Your task to perform on an android device: Open sound settings Image 0: 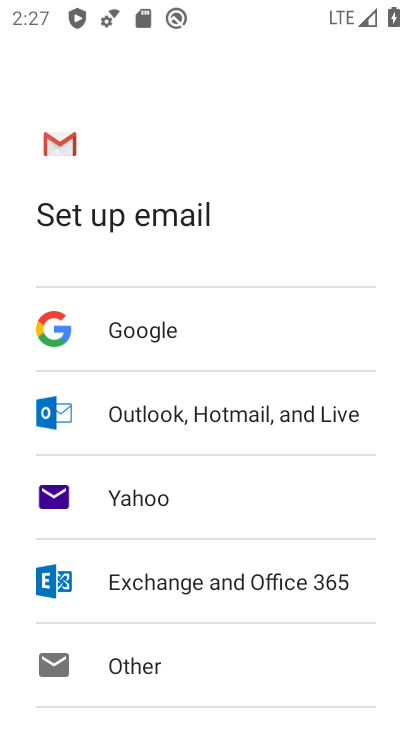
Step 0: press home button
Your task to perform on an android device: Open sound settings Image 1: 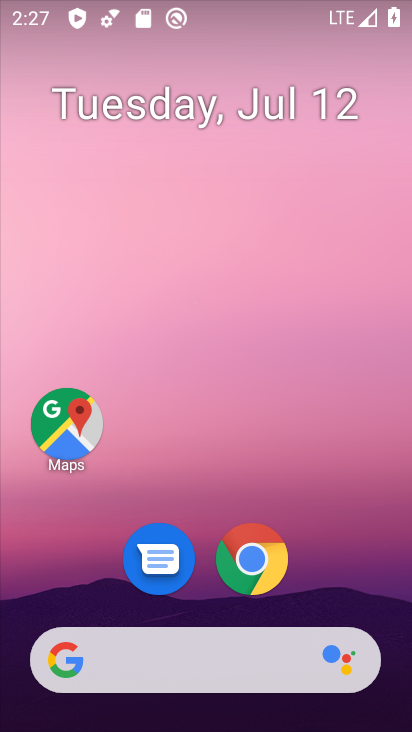
Step 1: drag from (379, 572) to (406, 196)
Your task to perform on an android device: Open sound settings Image 2: 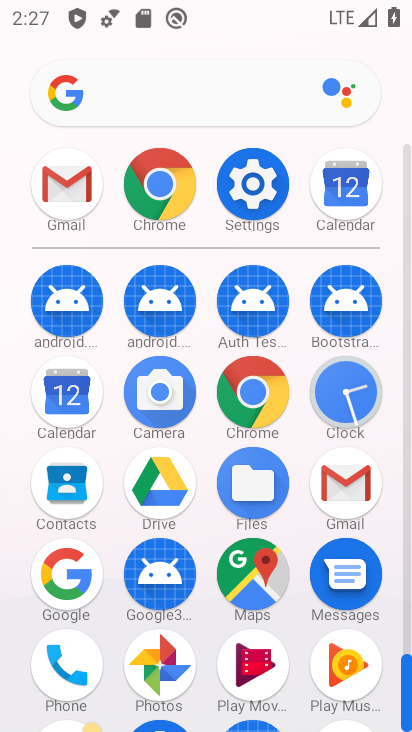
Step 2: click (268, 210)
Your task to perform on an android device: Open sound settings Image 3: 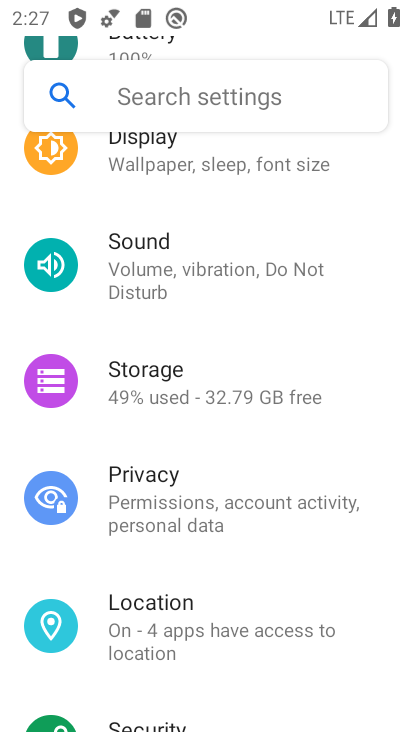
Step 3: drag from (375, 333) to (375, 431)
Your task to perform on an android device: Open sound settings Image 4: 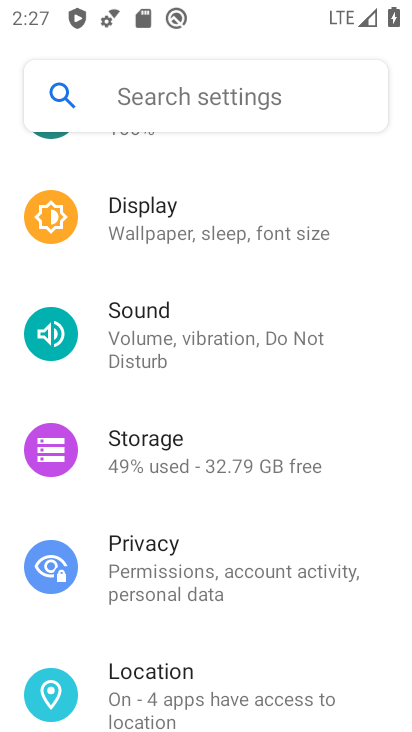
Step 4: drag from (363, 279) to (363, 384)
Your task to perform on an android device: Open sound settings Image 5: 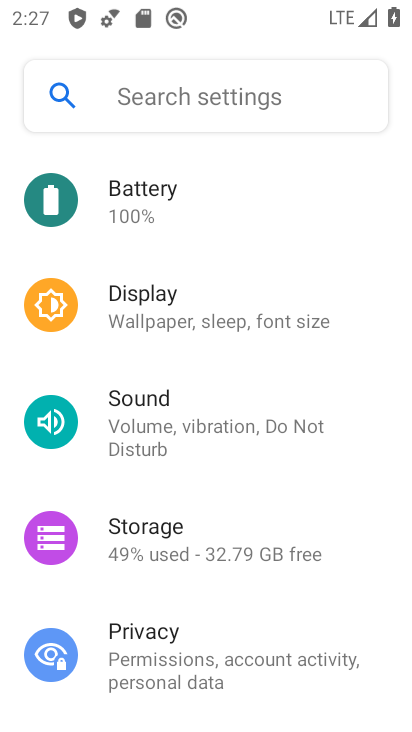
Step 5: drag from (361, 263) to (360, 366)
Your task to perform on an android device: Open sound settings Image 6: 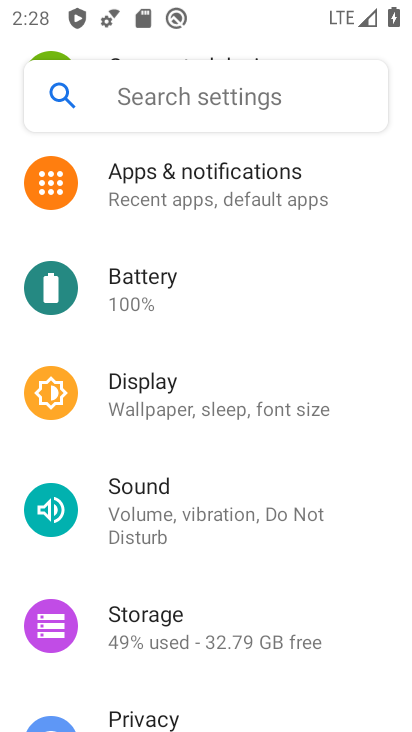
Step 6: drag from (367, 251) to (365, 372)
Your task to perform on an android device: Open sound settings Image 7: 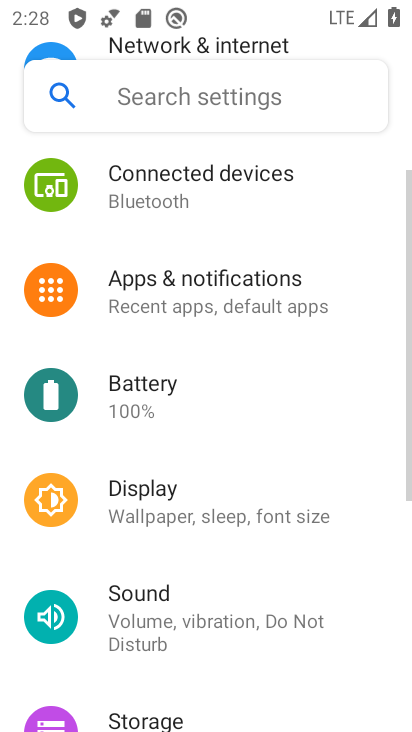
Step 7: drag from (361, 239) to (362, 428)
Your task to perform on an android device: Open sound settings Image 8: 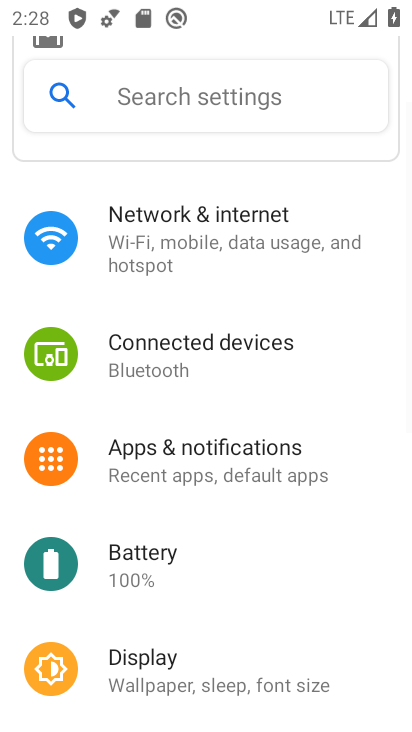
Step 8: drag from (353, 459) to (356, 381)
Your task to perform on an android device: Open sound settings Image 9: 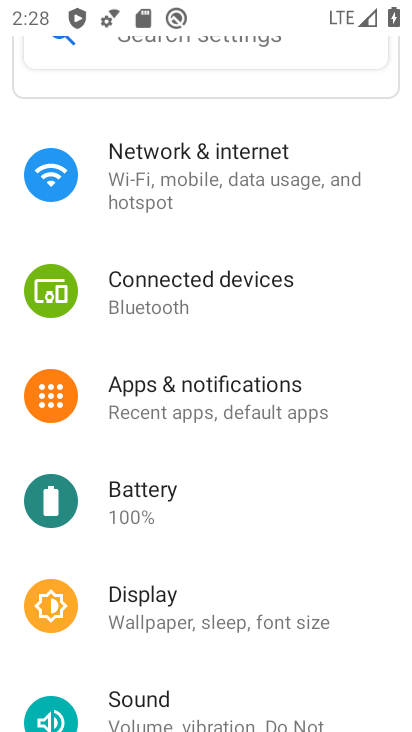
Step 9: drag from (353, 441) to (353, 363)
Your task to perform on an android device: Open sound settings Image 10: 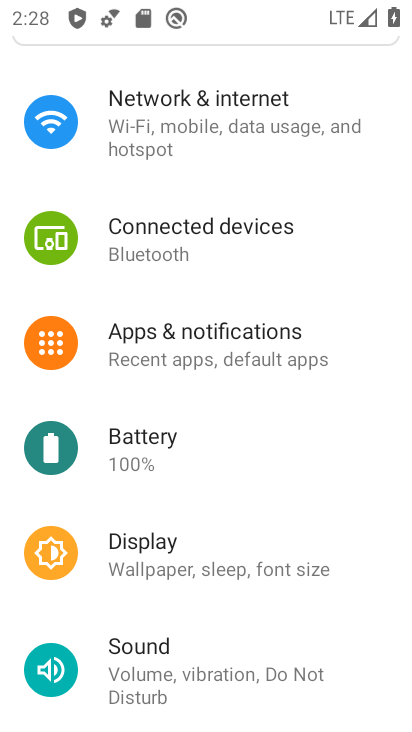
Step 10: drag from (380, 479) to (386, 399)
Your task to perform on an android device: Open sound settings Image 11: 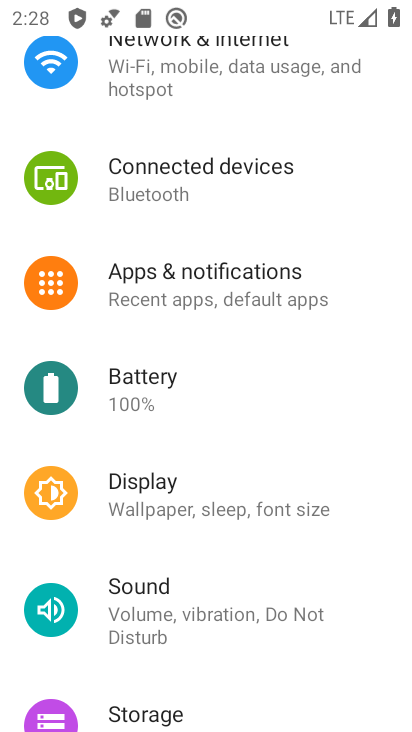
Step 11: drag from (372, 504) to (376, 407)
Your task to perform on an android device: Open sound settings Image 12: 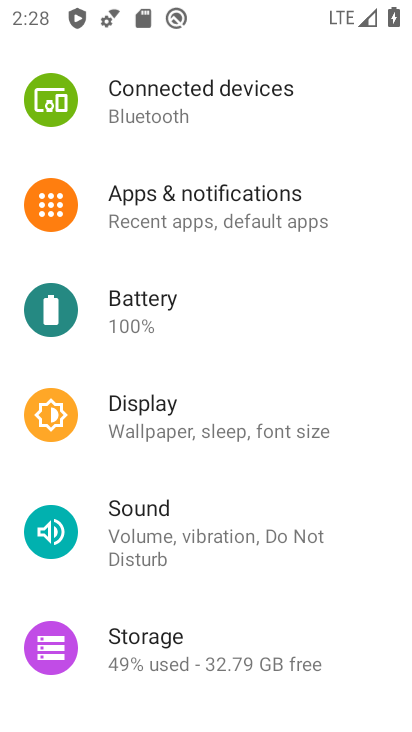
Step 12: drag from (367, 456) to (370, 325)
Your task to perform on an android device: Open sound settings Image 13: 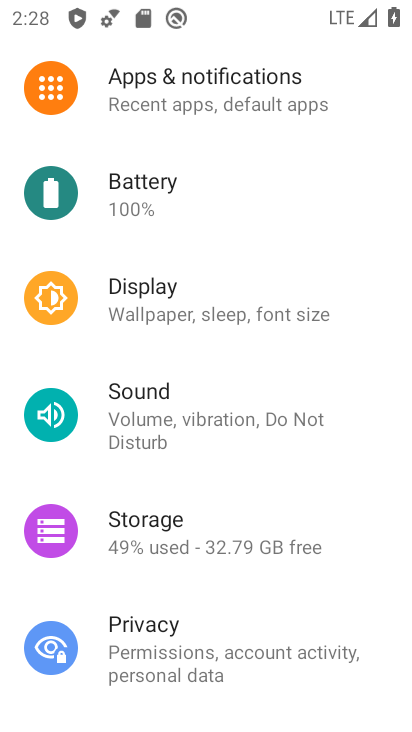
Step 13: click (322, 416)
Your task to perform on an android device: Open sound settings Image 14: 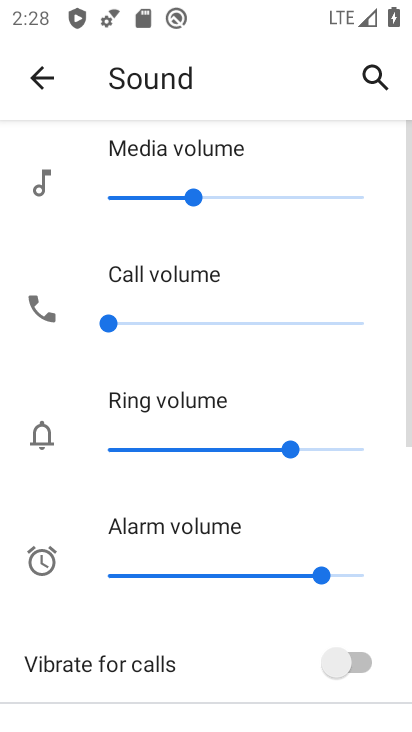
Step 14: task complete